Your task to perform on an android device: Open Youtube and go to the subscriptions tab Image 0: 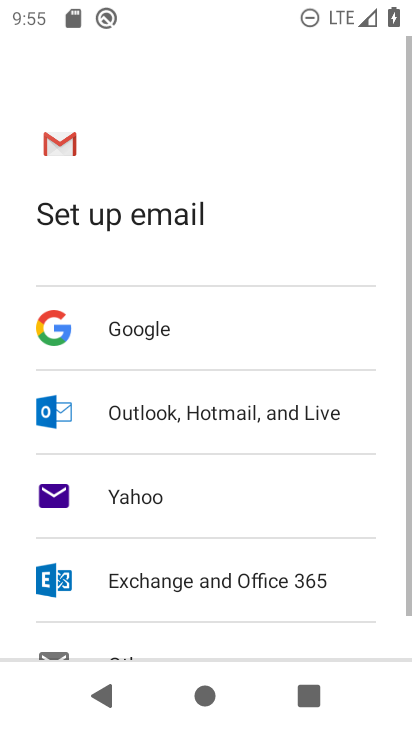
Step 0: press home button
Your task to perform on an android device: Open Youtube and go to the subscriptions tab Image 1: 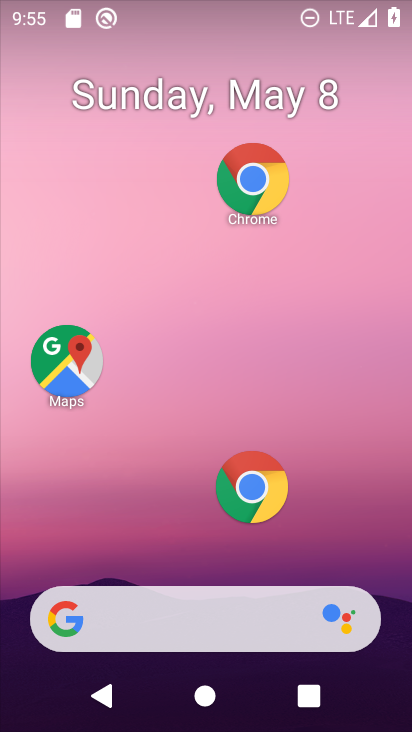
Step 1: drag from (154, 502) to (195, 17)
Your task to perform on an android device: Open Youtube and go to the subscriptions tab Image 2: 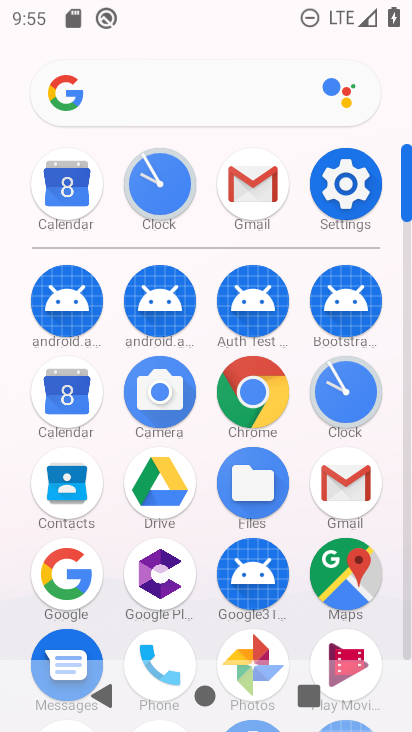
Step 2: drag from (294, 439) to (311, 178)
Your task to perform on an android device: Open Youtube and go to the subscriptions tab Image 3: 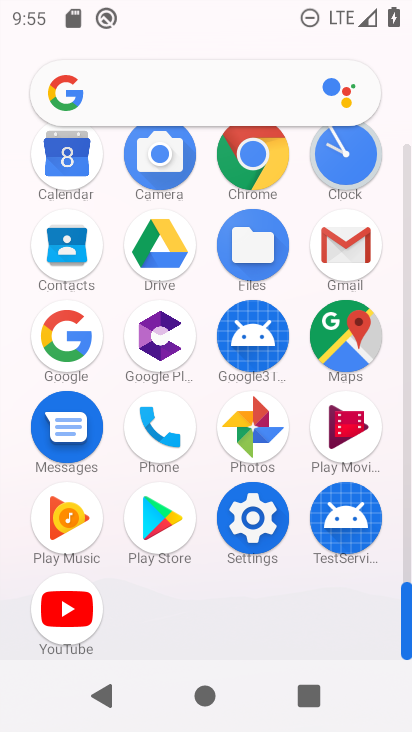
Step 3: click (77, 598)
Your task to perform on an android device: Open Youtube and go to the subscriptions tab Image 4: 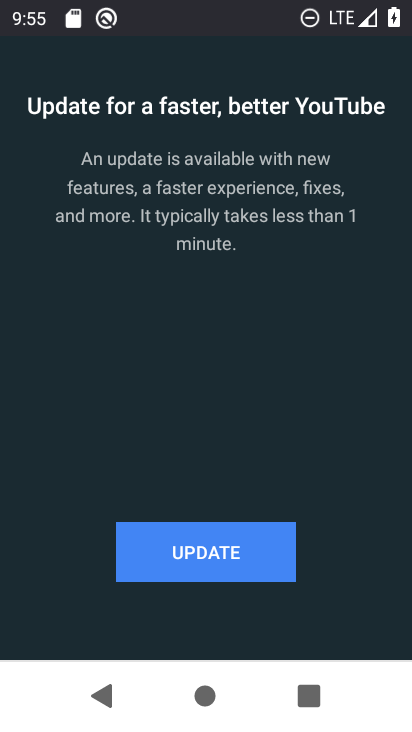
Step 4: click (254, 547)
Your task to perform on an android device: Open Youtube and go to the subscriptions tab Image 5: 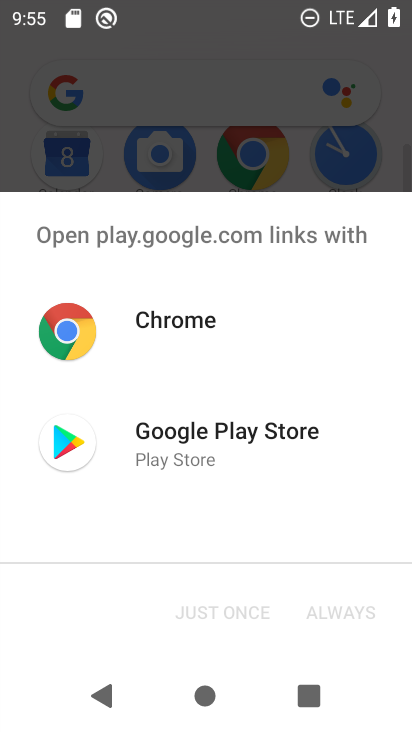
Step 5: click (195, 433)
Your task to perform on an android device: Open Youtube and go to the subscriptions tab Image 6: 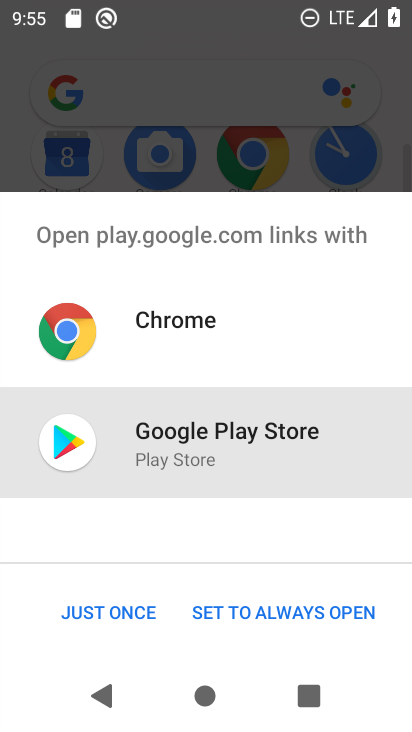
Step 6: click (121, 605)
Your task to perform on an android device: Open Youtube and go to the subscriptions tab Image 7: 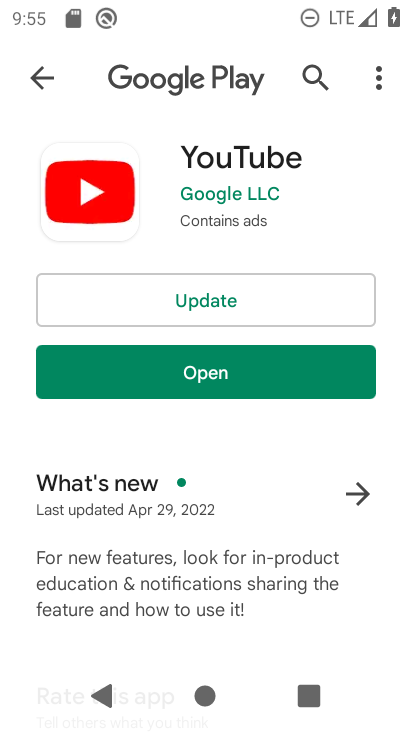
Step 7: click (152, 282)
Your task to perform on an android device: Open Youtube and go to the subscriptions tab Image 8: 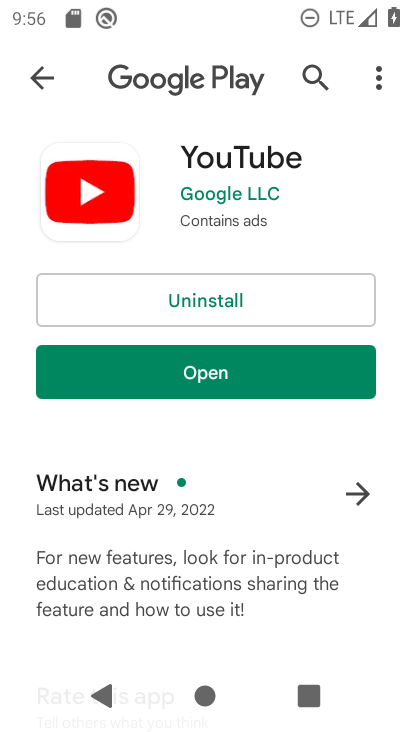
Step 8: click (198, 374)
Your task to perform on an android device: Open Youtube and go to the subscriptions tab Image 9: 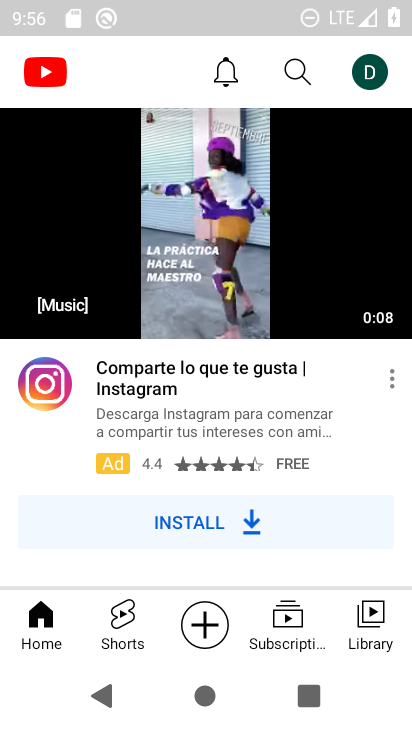
Step 9: click (288, 610)
Your task to perform on an android device: Open Youtube and go to the subscriptions tab Image 10: 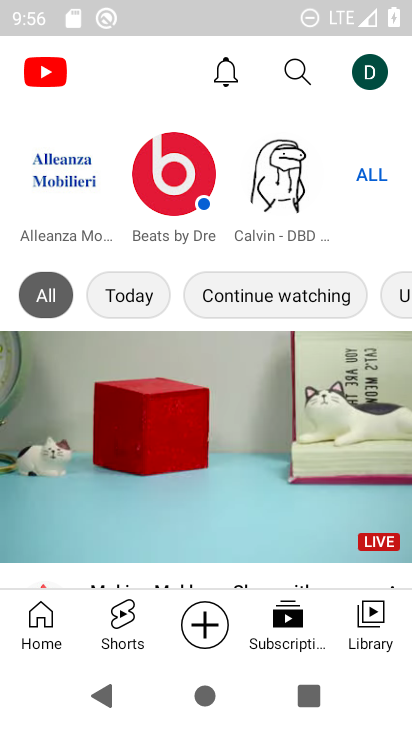
Step 10: task complete